Your task to perform on an android device: Open Chrome and go to settings Image 0: 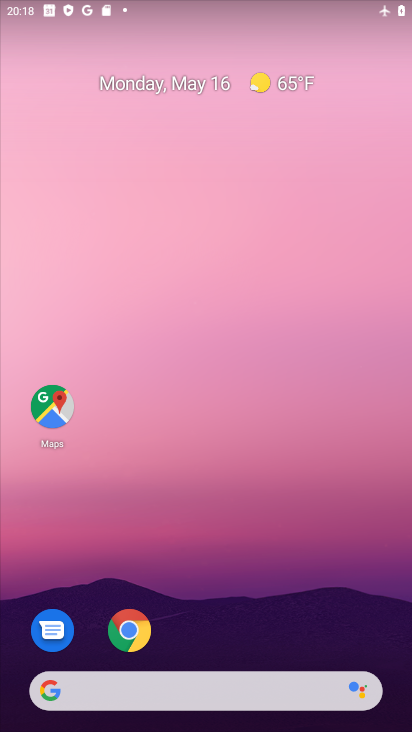
Step 0: click (125, 624)
Your task to perform on an android device: Open Chrome and go to settings Image 1: 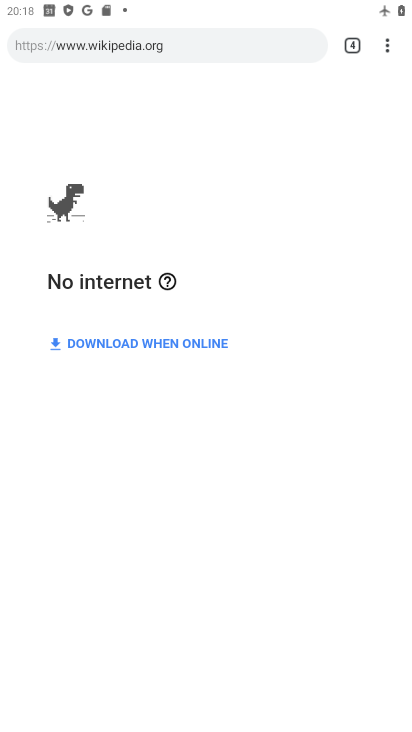
Step 1: task complete